Your task to perform on an android device: Show the shopping cart on ebay. Add "rayovac triple a" to the cart on ebay Image 0: 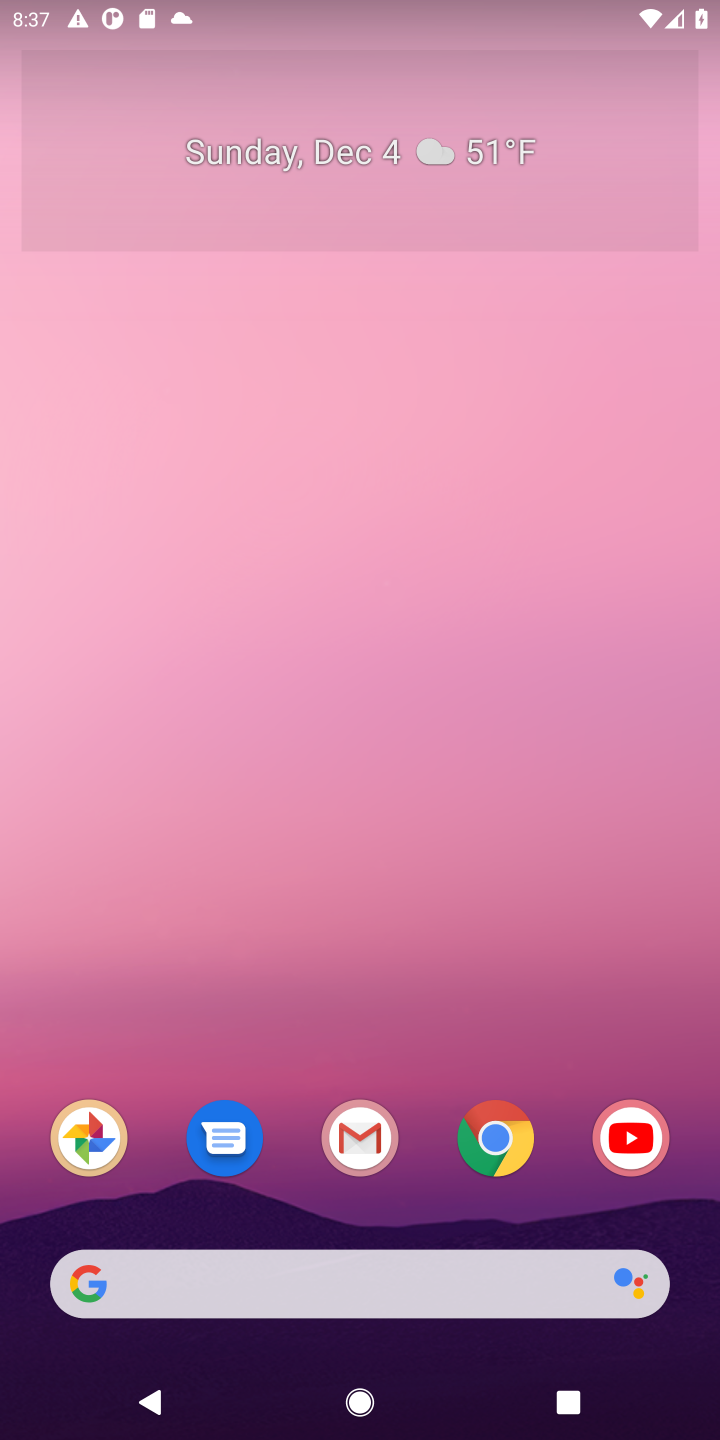
Step 0: click (505, 1135)
Your task to perform on an android device: Show the shopping cart on ebay. Add "rayovac triple a" to the cart on ebay Image 1: 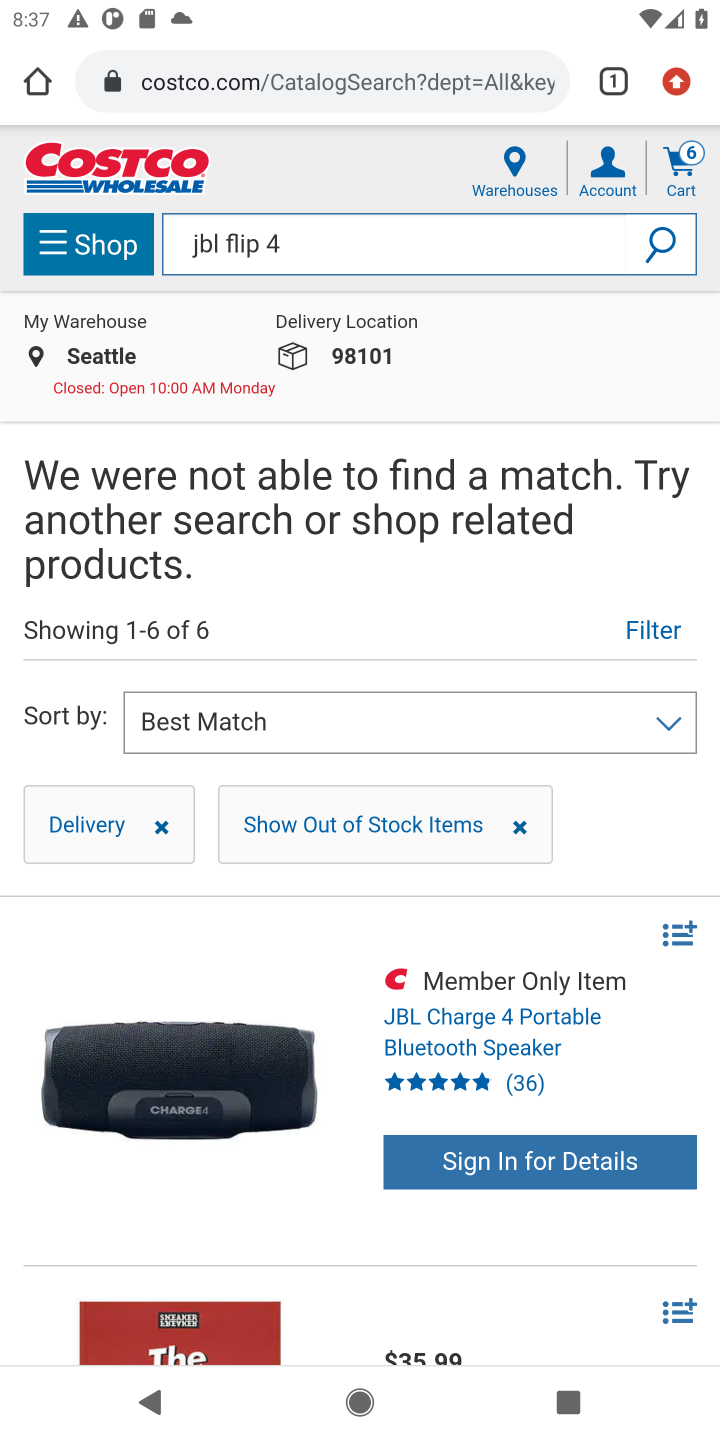
Step 1: click (450, 83)
Your task to perform on an android device: Show the shopping cart on ebay. Add "rayovac triple a" to the cart on ebay Image 2: 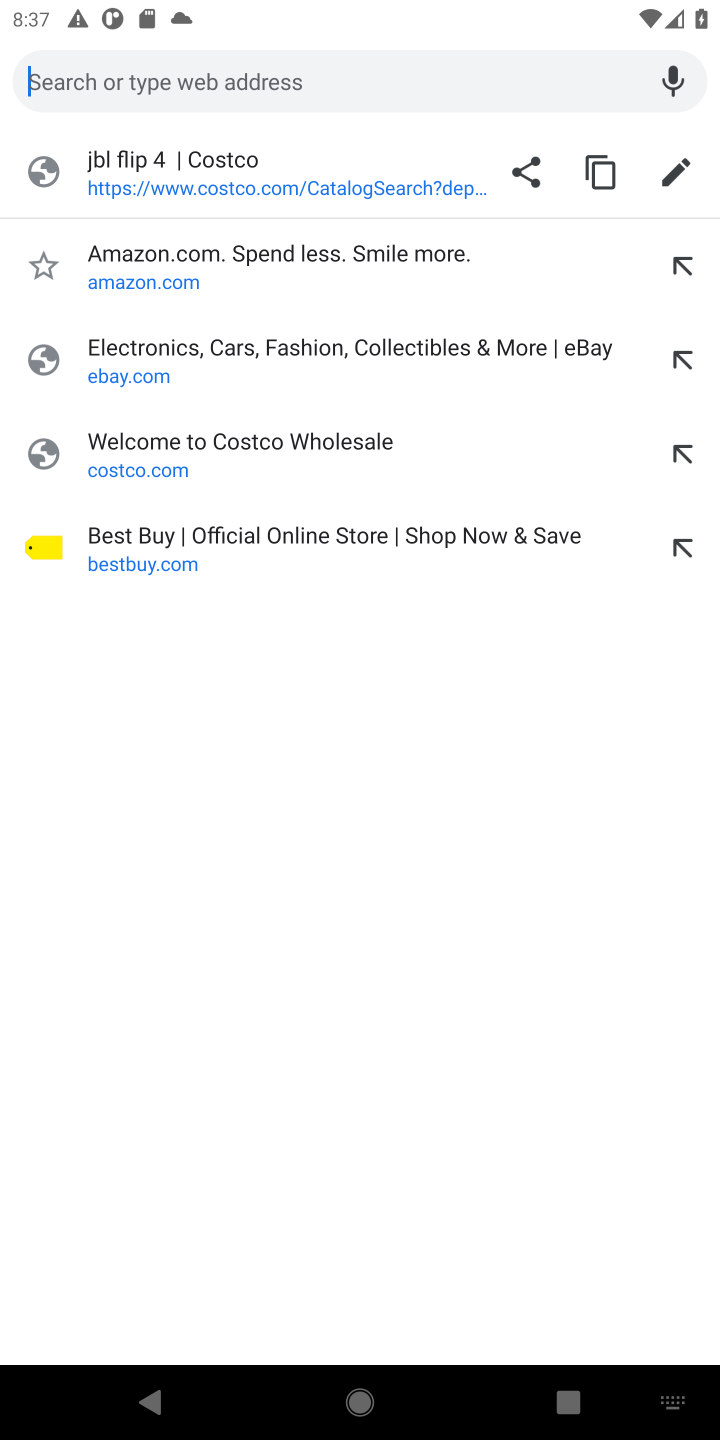
Step 2: click (297, 336)
Your task to perform on an android device: Show the shopping cart on ebay. Add "rayovac triple a" to the cart on ebay Image 3: 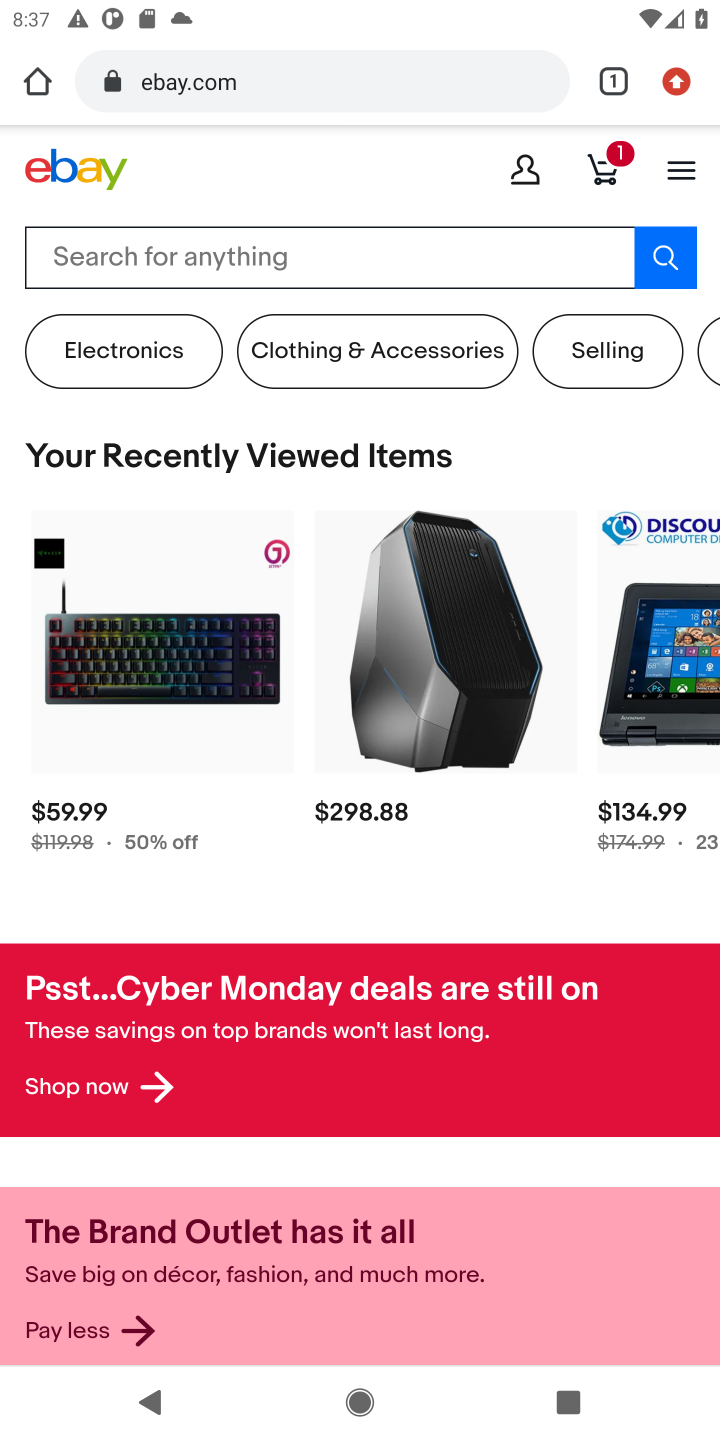
Step 3: click (609, 172)
Your task to perform on an android device: Show the shopping cart on ebay. Add "rayovac triple a" to the cart on ebay Image 4: 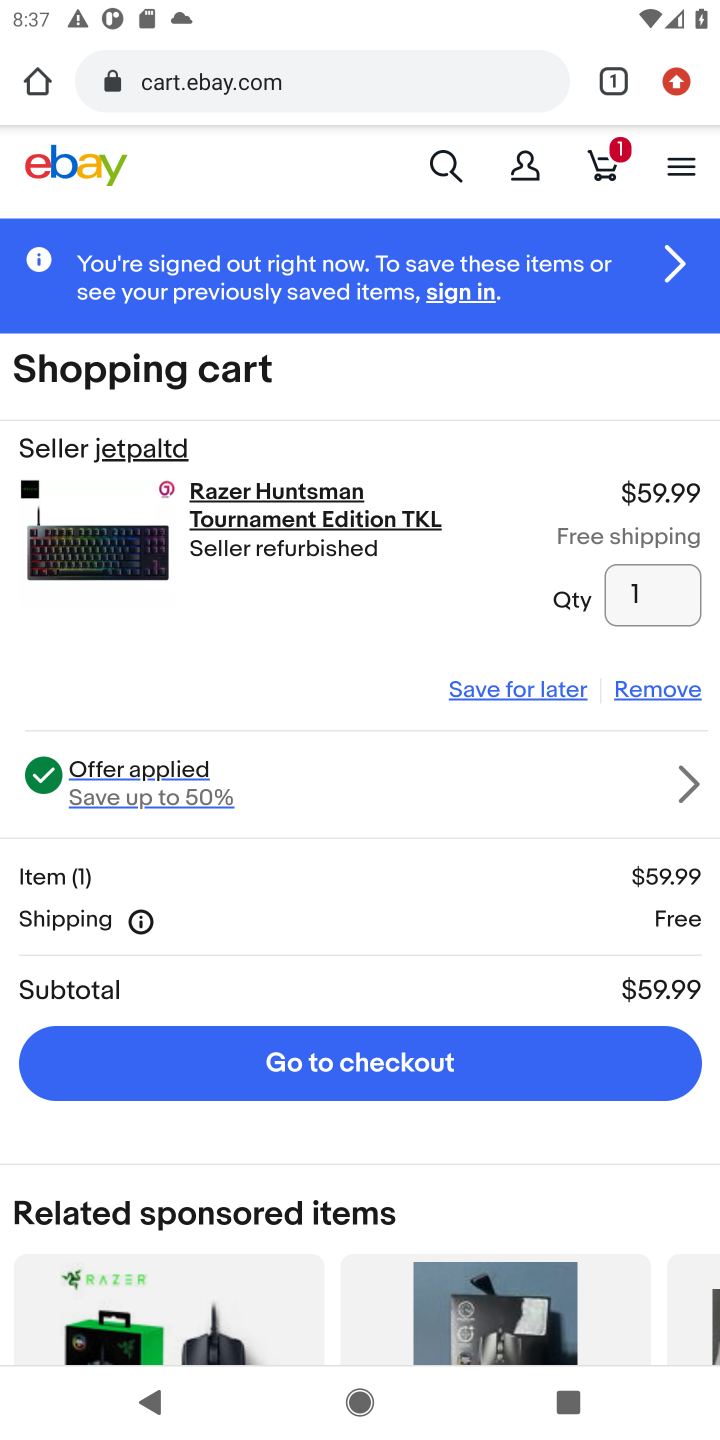
Step 4: click (449, 167)
Your task to perform on an android device: Show the shopping cart on ebay. Add "rayovac triple a" to the cart on ebay Image 5: 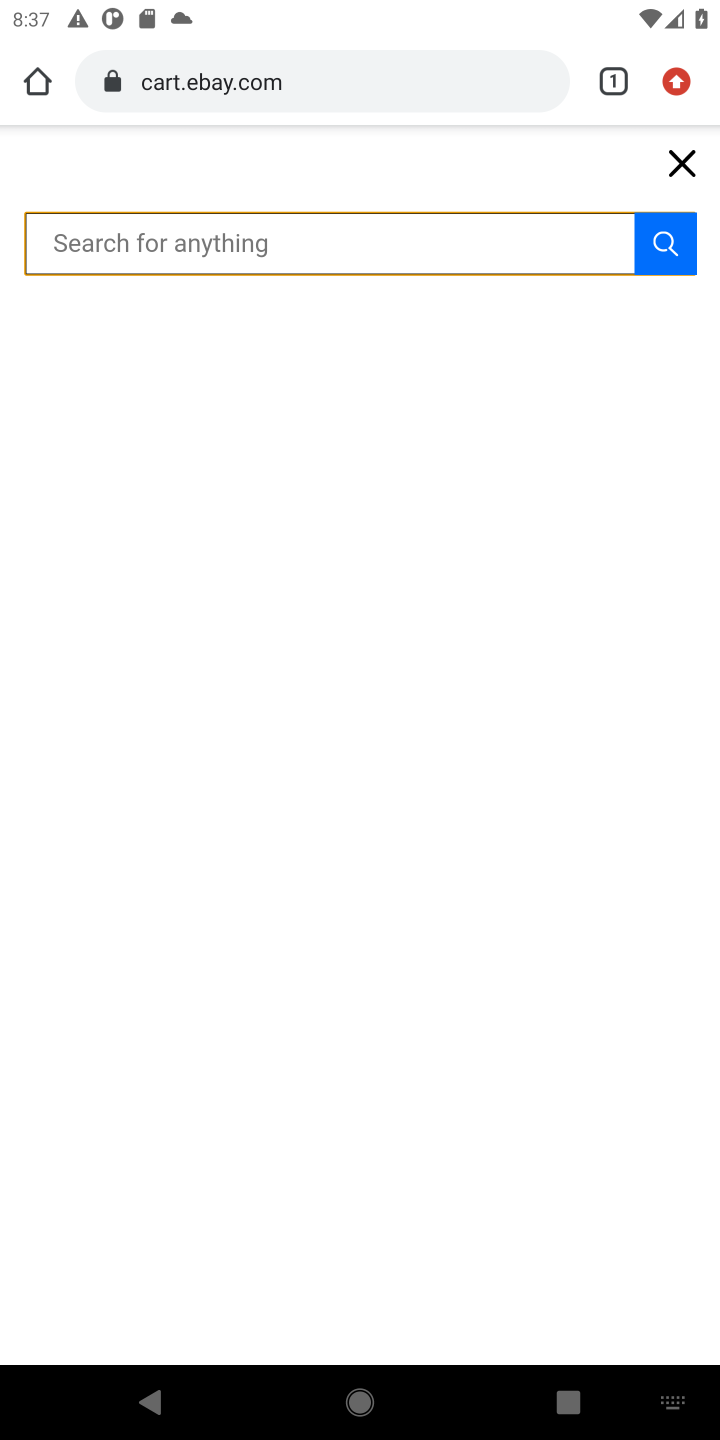
Step 5: type "rayovac triple a"
Your task to perform on an android device: Show the shopping cart on ebay. Add "rayovac triple a" to the cart on ebay Image 6: 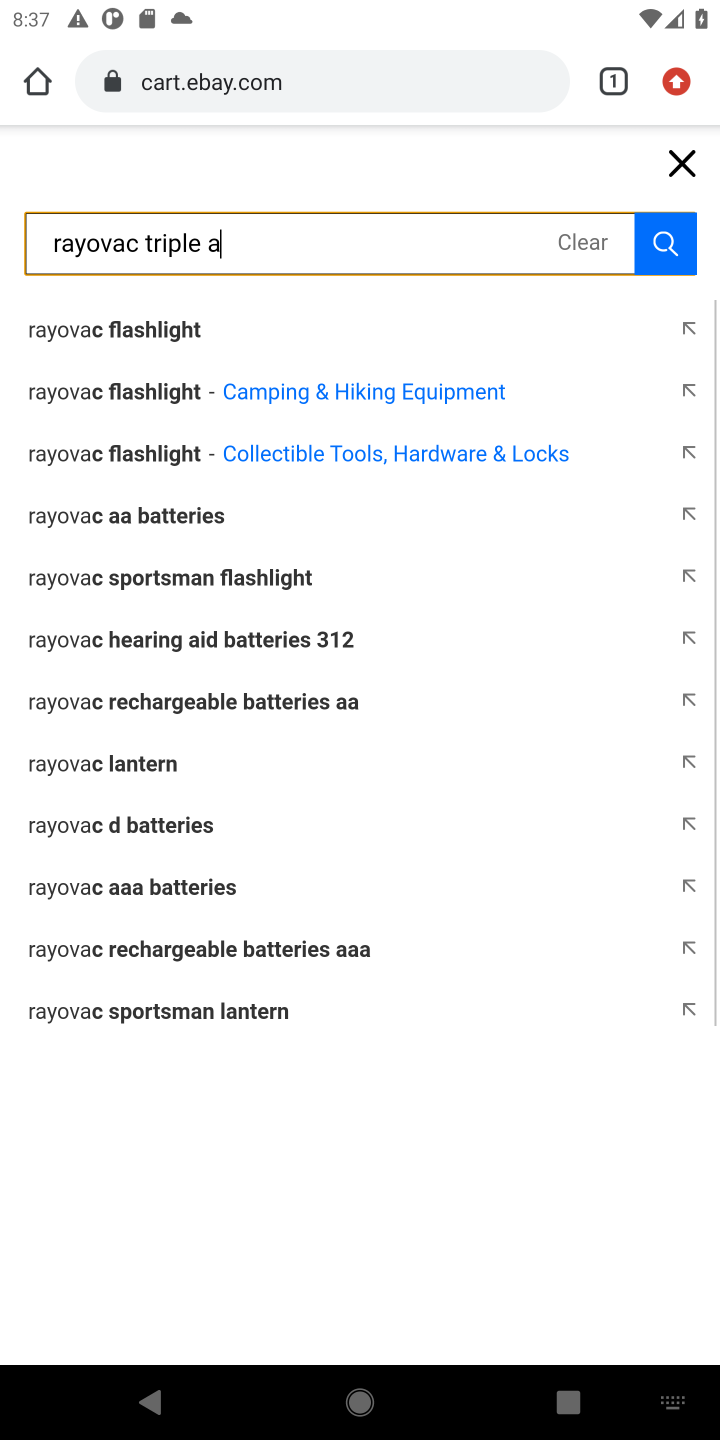
Step 6: press enter
Your task to perform on an android device: Show the shopping cart on ebay. Add "rayovac triple a" to the cart on ebay Image 7: 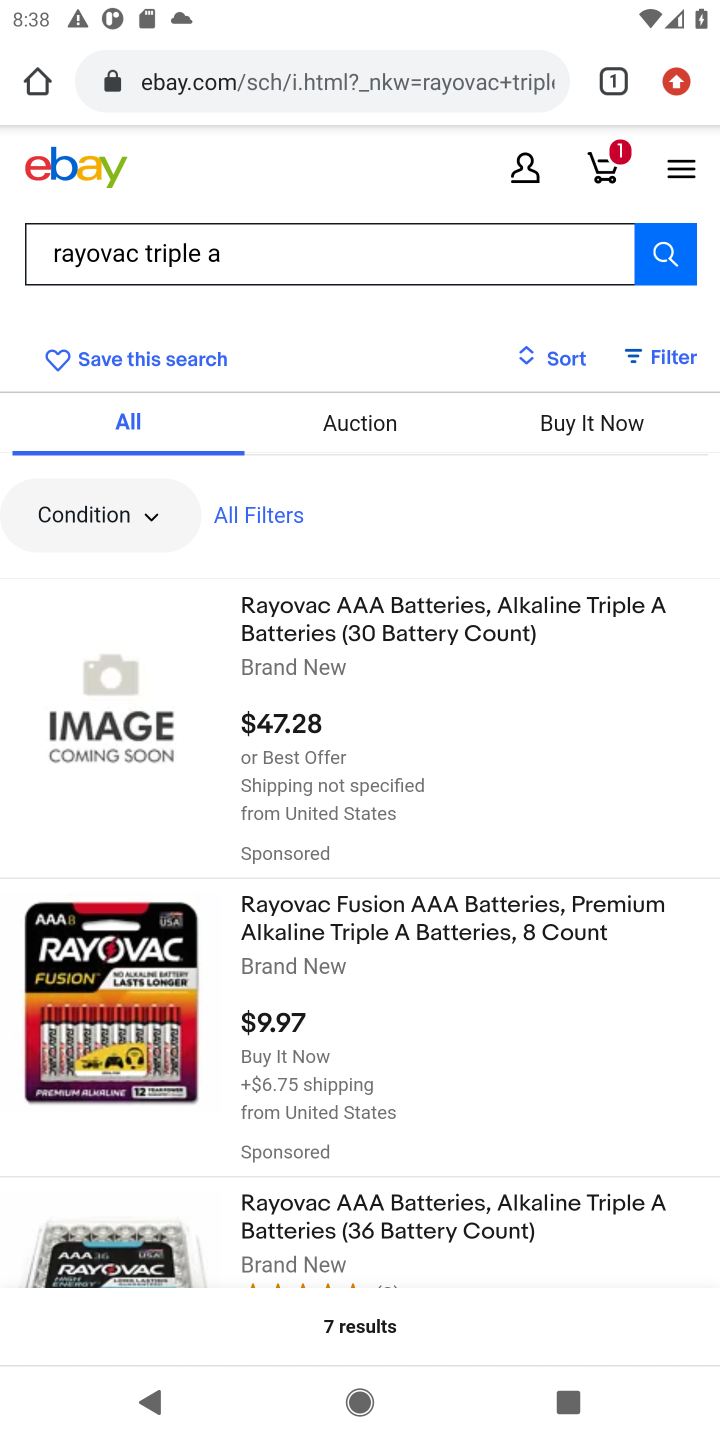
Step 7: click (115, 1027)
Your task to perform on an android device: Show the shopping cart on ebay. Add "rayovac triple a" to the cart on ebay Image 8: 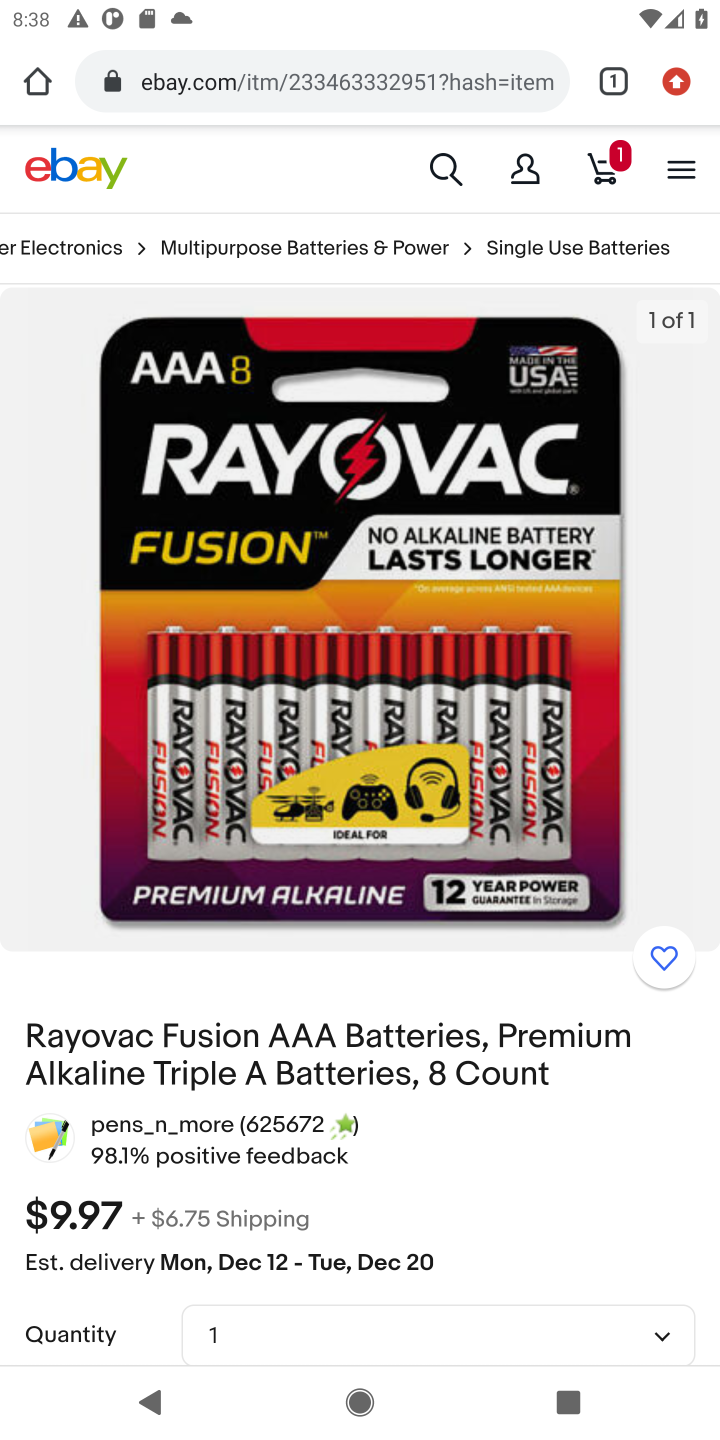
Step 8: drag from (521, 1151) to (530, 462)
Your task to perform on an android device: Show the shopping cart on ebay. Add "rayovac triple a" to the cart on ebay Image 9: 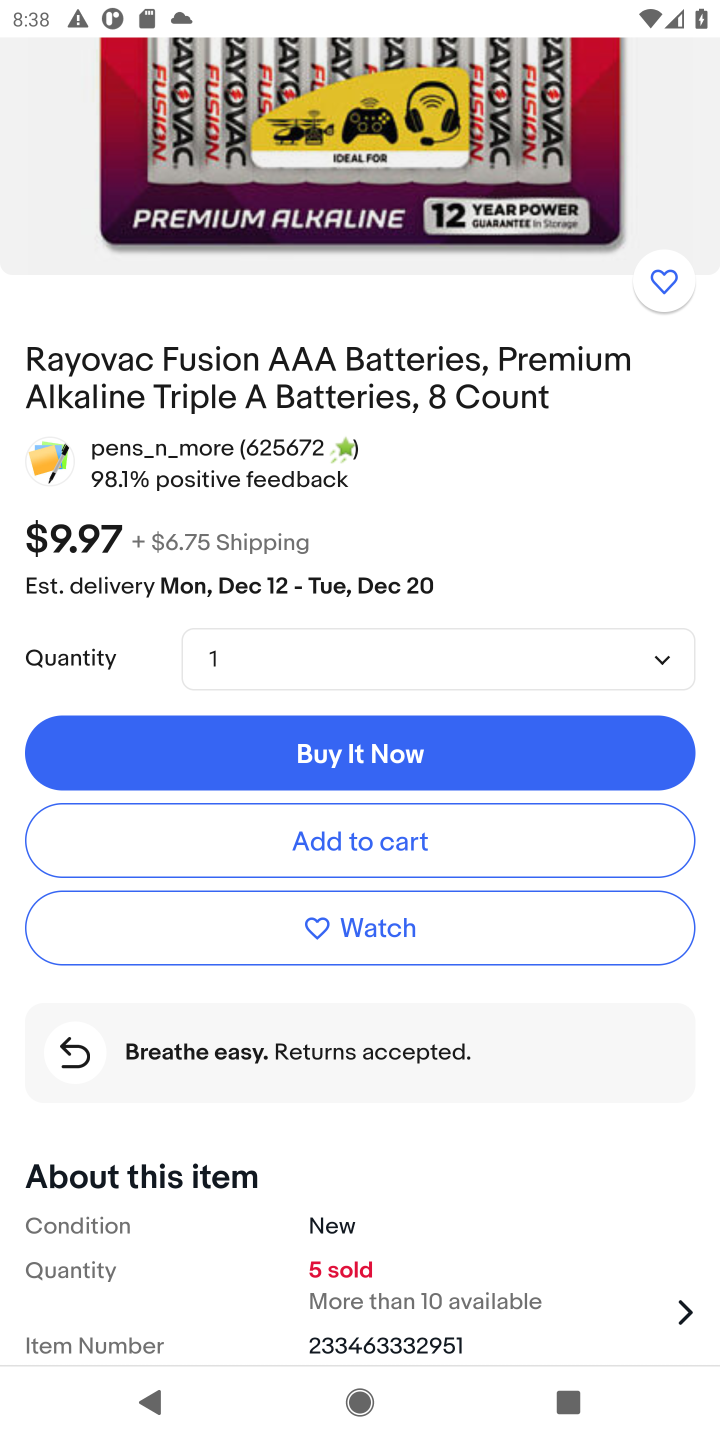
Step 9: click (357, 844)
Your task to perform on an android device: Show the shopping cart on ebay. Add "rayovac triple a" to the cart on ebay Image 10: 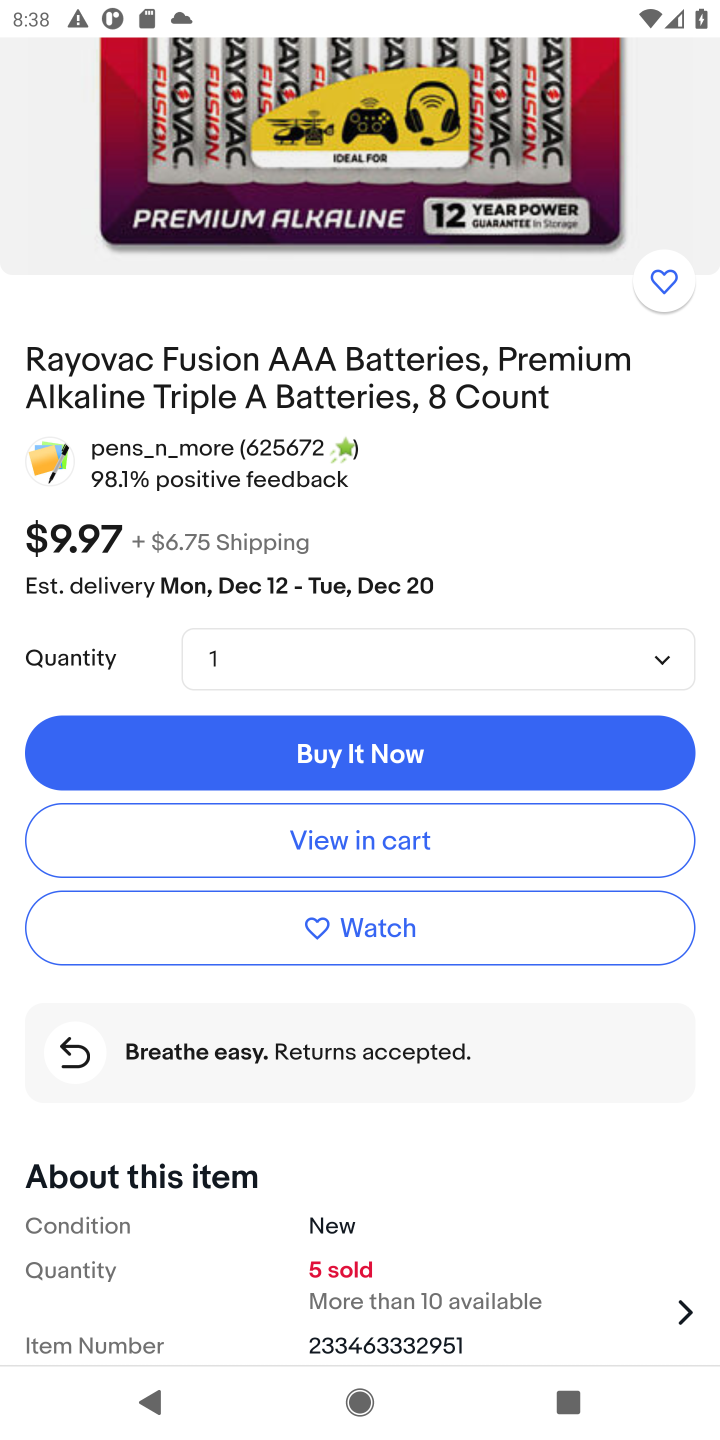
Step 10: click (357, 844)
Your task to perform on an android device: Show the shopping cart on ebay. Add "rayovac triple a" to the cart on ebay Image 11: 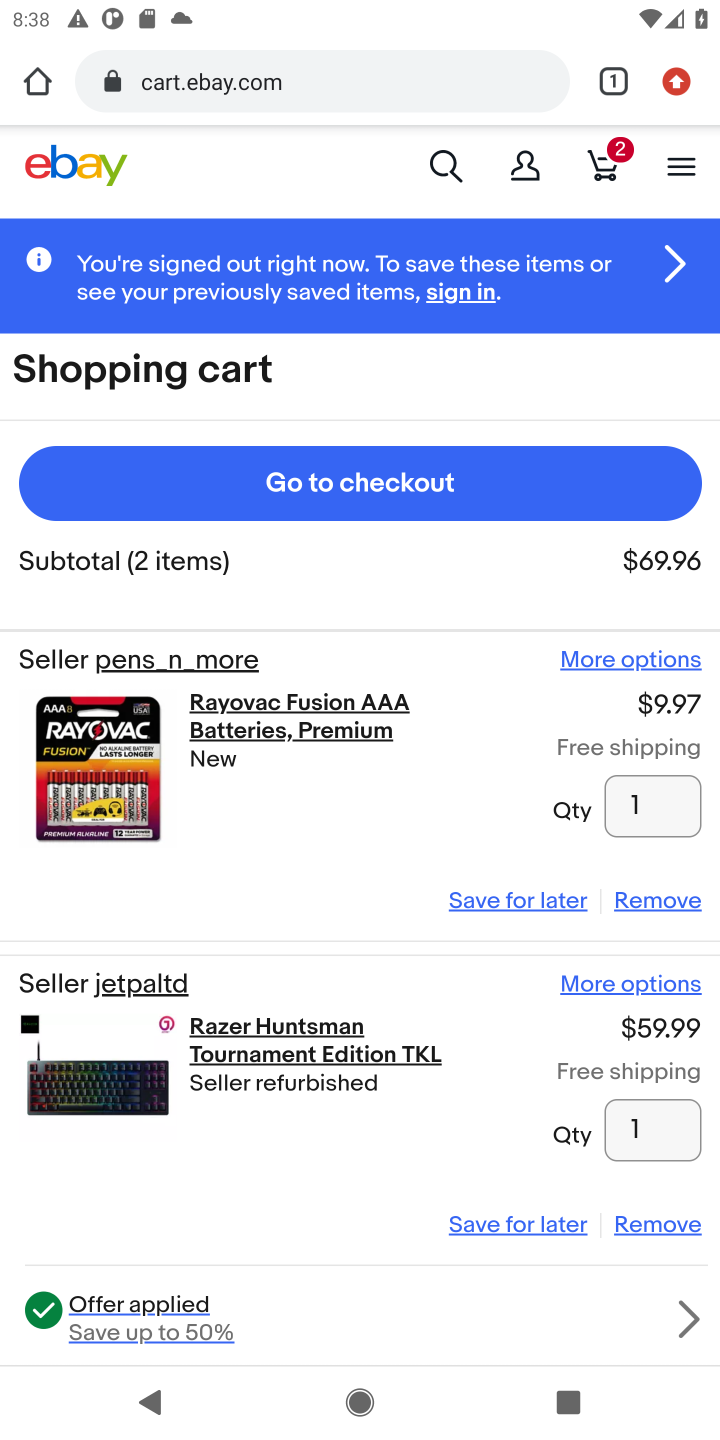
Step 11: task complete